Your task to perform on an android device: turn off data saver in the chrome app Image 0: 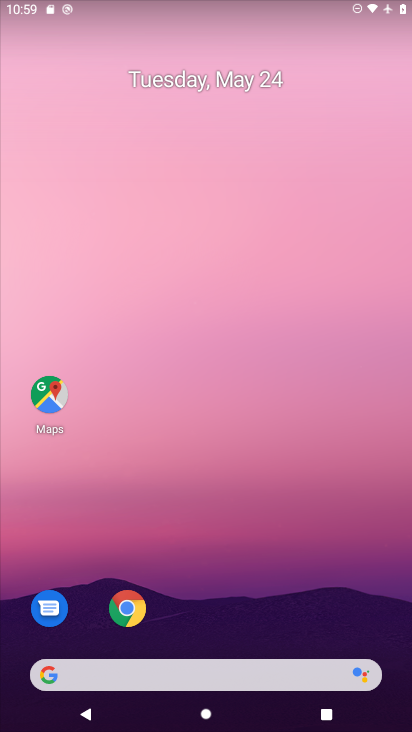
Step 0: click (130, 611)
Your task to perform on an android device: turn off data saver in the chrome app Image 1: 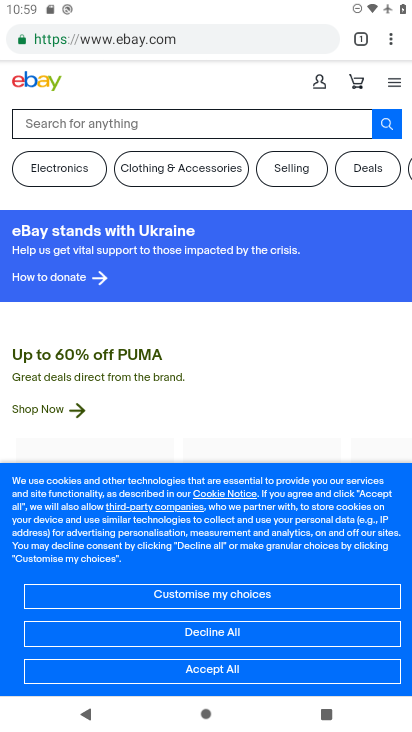
Step 1: click (392, 41)
Your task to perform on an android device: turn off data saver in the chrome app Image 2: 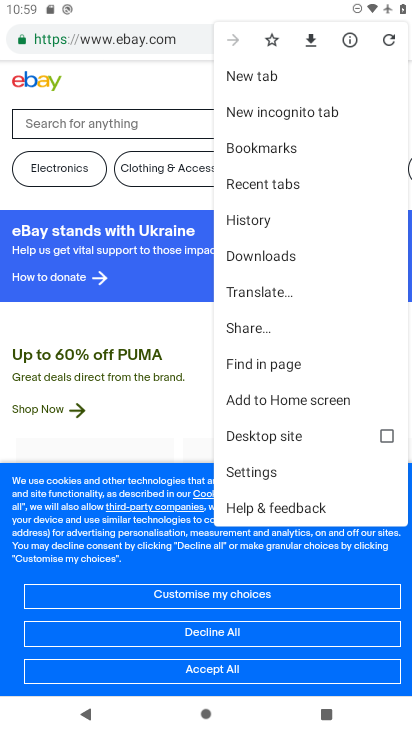
Step 2: click (259, 473)
Your task to perform on an android device: turn off data saver in the chrome app Image 3: 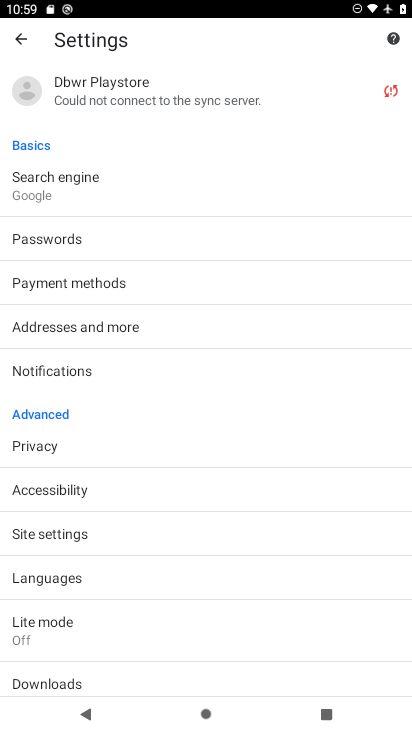
Step 3: click (53, 635)
Your task to perform on an android device: turn off data saver in the chrome app Image 4: 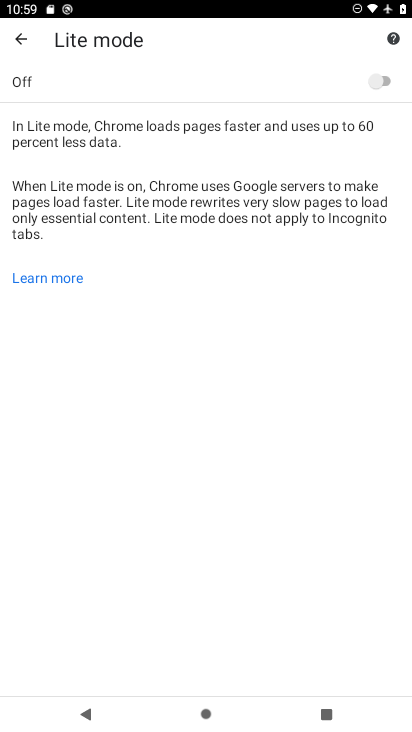
Step 4: task complete